Your task to perform on an android device: turn off airplane mode Image 0: 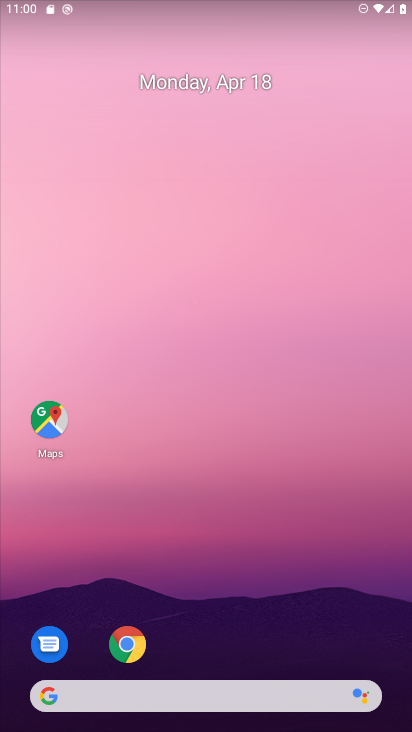
Step 0: drag from (260, 384) to (296, 93)
Your task to perform on an android device: turn off airplane mode Image 1: 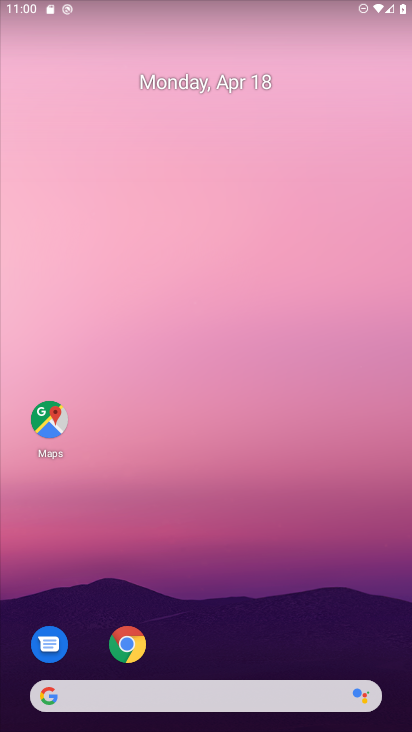
Step 1: drag from (226, 339) to (261, 51)
Your task to perform on an android device: turn off airplane mode Image 2: 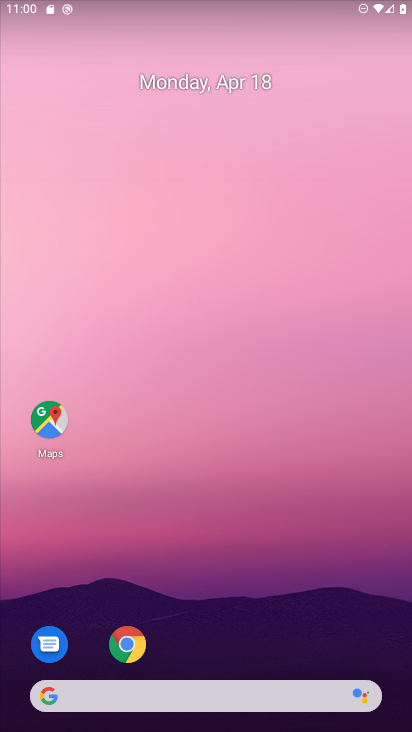
Step 2: drag from (189, 606) to (223, 22)
Your task to perform on an android device: turn off airplane mode Image 3: 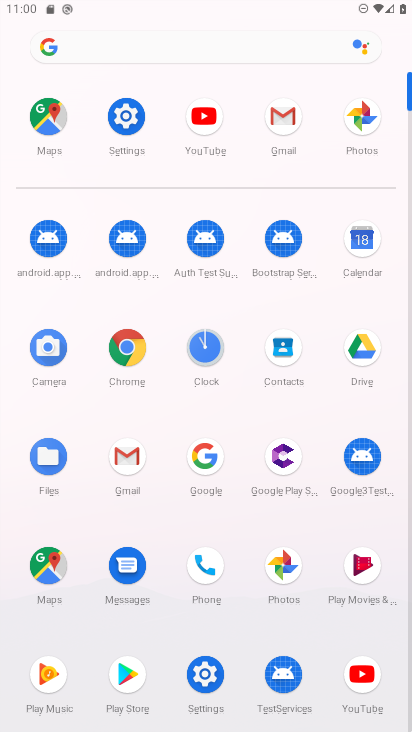
Step 3: click (128, 142)
Your task to perform on an android device: turn off airplane mode Image 4: 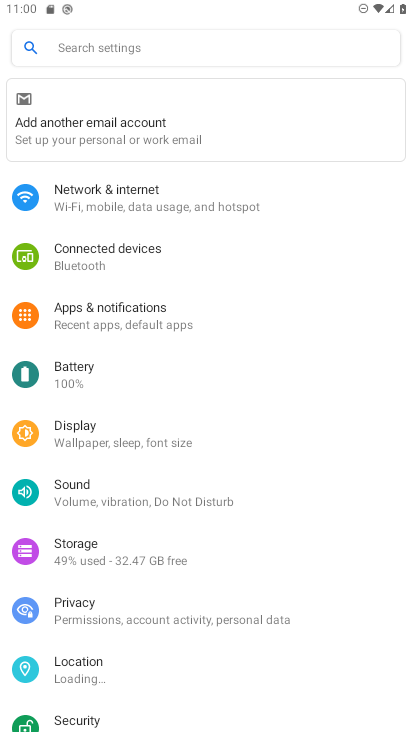
Step 4: click (136, 200)
Your task to perform on an android device: turn off airplane mode Image 5: 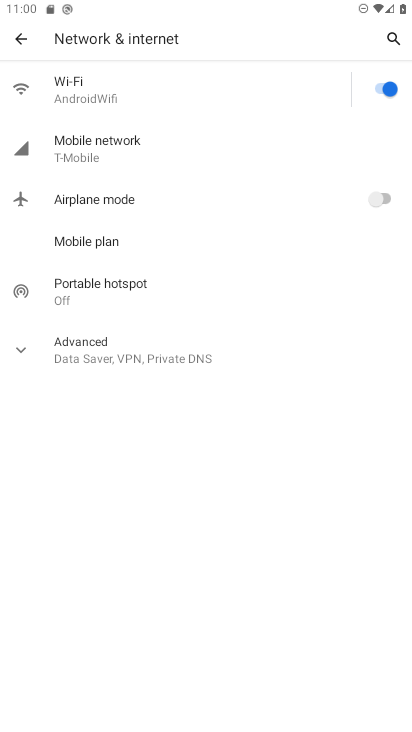
Step 5: task complete